Your task to perform on an android device: all mails in gmail Image 0: 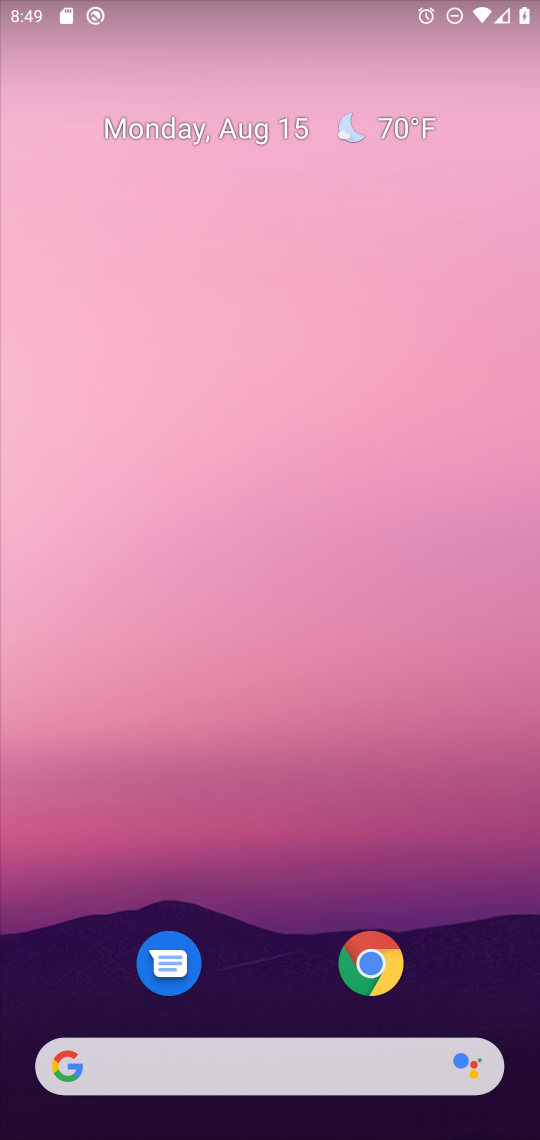
Step 0: drag from (269, 993) to (220, 156)
Your task to perform on an android device: all mails in gmail Image 1: 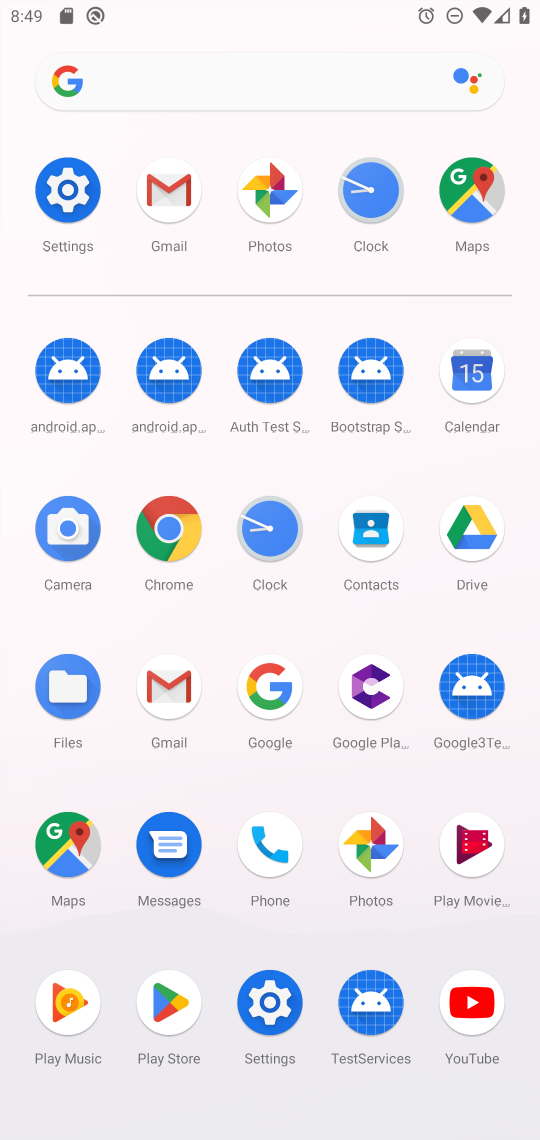
Step 1: click (175, 186)
Your task to perform on an android device: all mails in gmail Image 2: 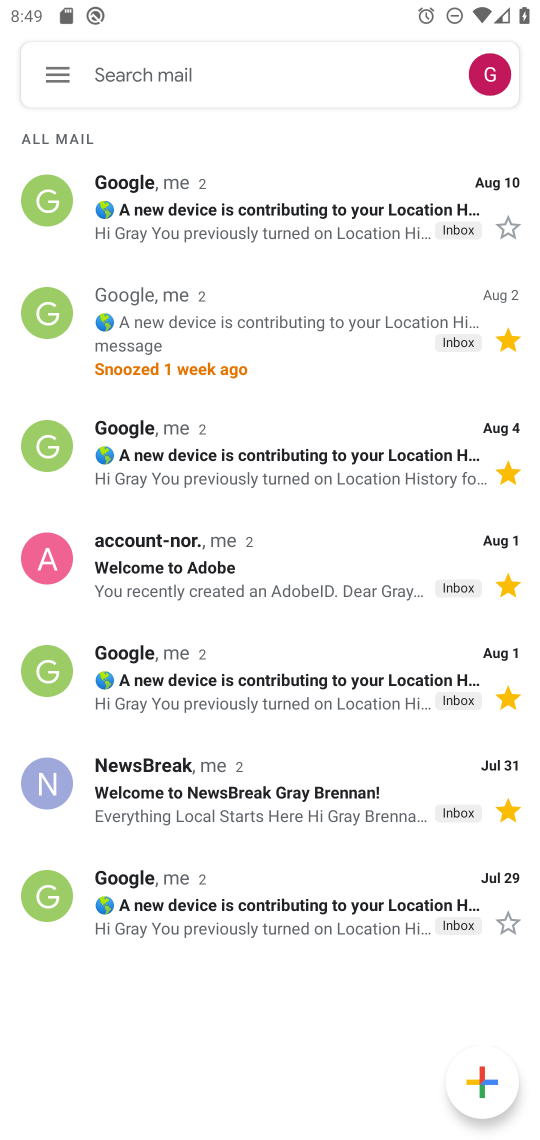
Step 2: click (63, 72)
Your task to perform on an android device: all mails in gmail Image 3: 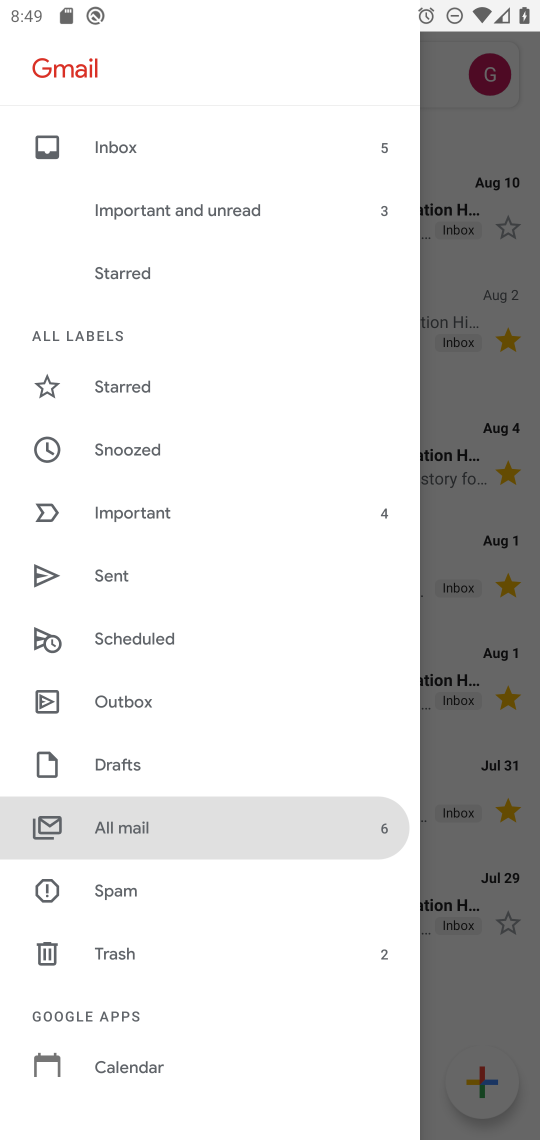
Step 3: click (377, 825)
Your task to perform on an android device: all mails in gmail Image 4: 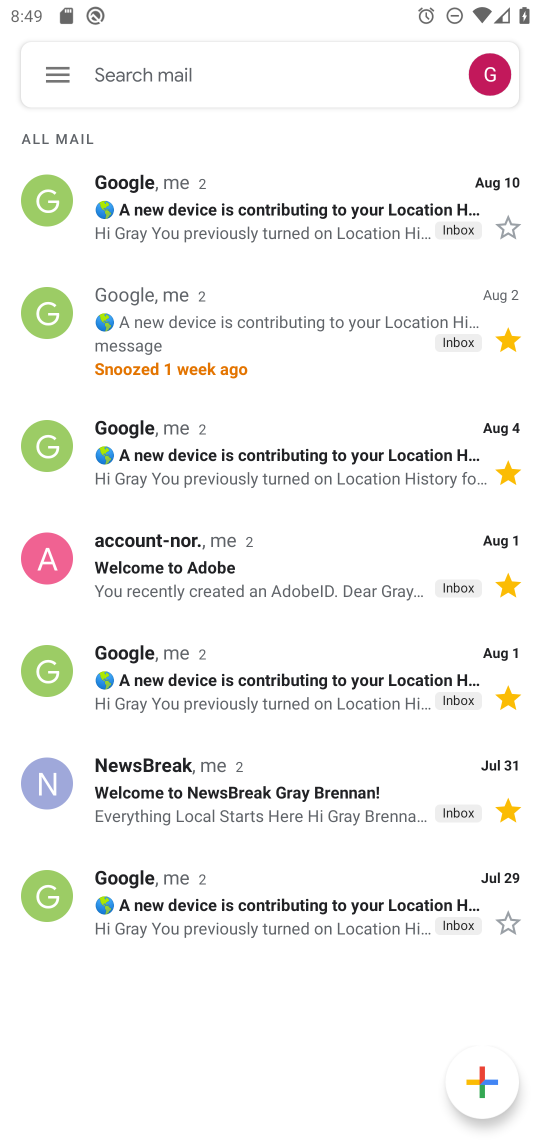
Step 4: task complete